Your task to perform on an android device: Go to location settings Image 0: 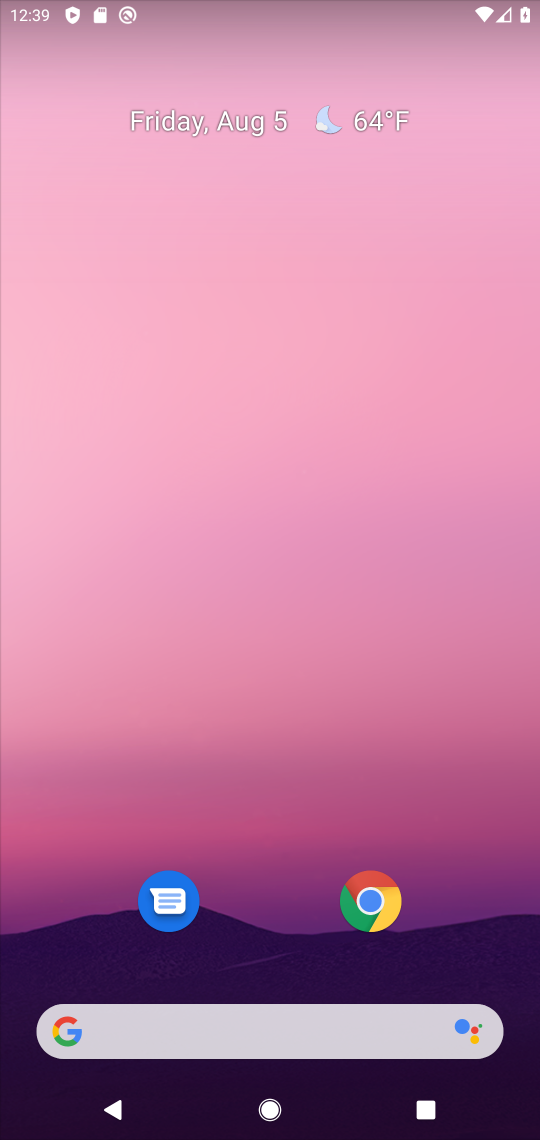
Step 0: drag from (223, 883) to (252, 290)
Your task to perform on an android device: Go to location settings Image 1: 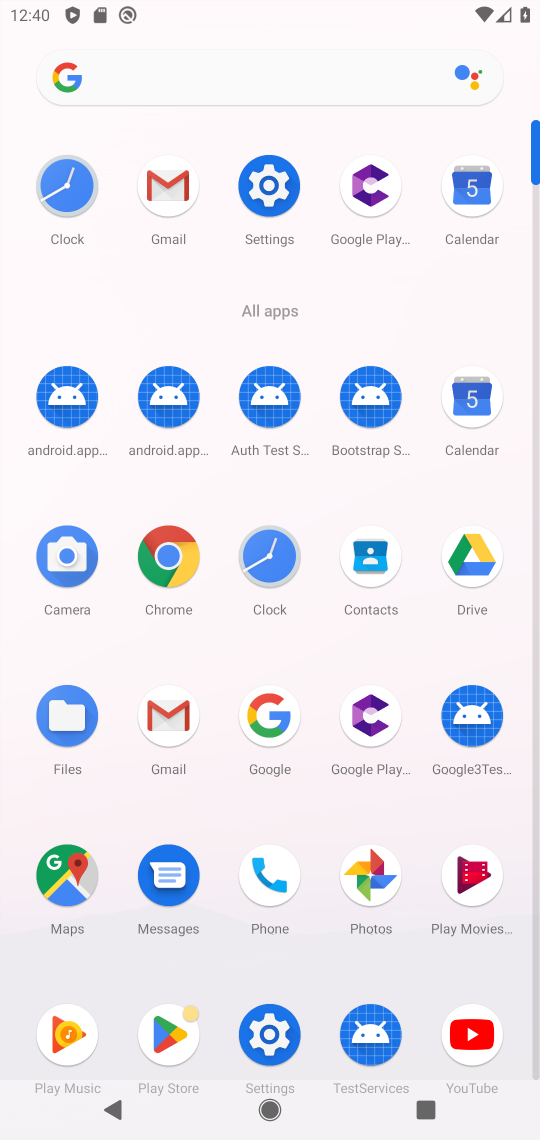
Step 1: click (267, 216)
Your task to perform on an android device: Go to location settings Image 2: 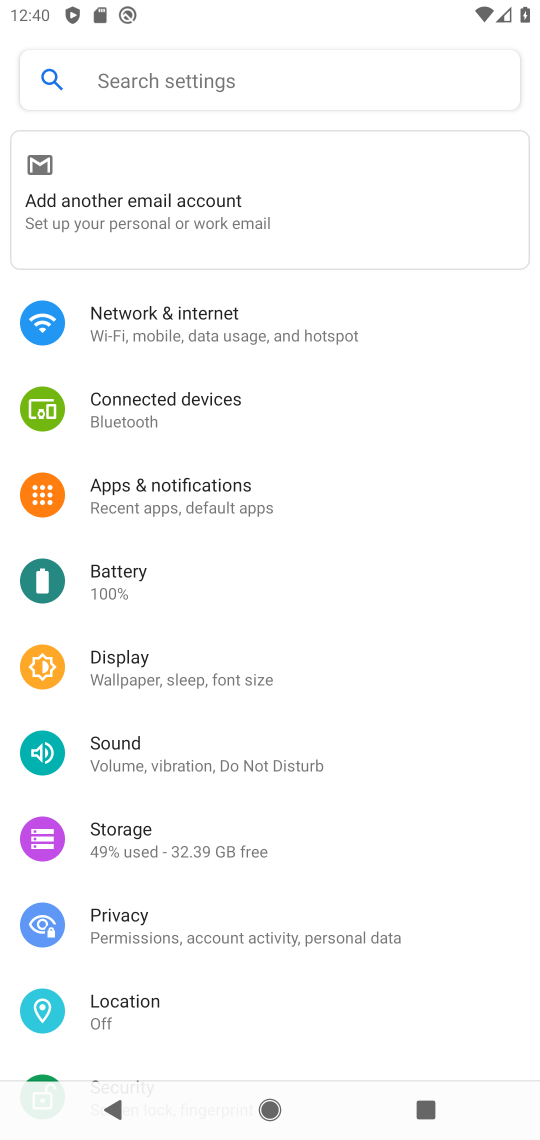
Step 2: click (141, 1015)
Your task to perform on an android device: Go to location settings Image 3: 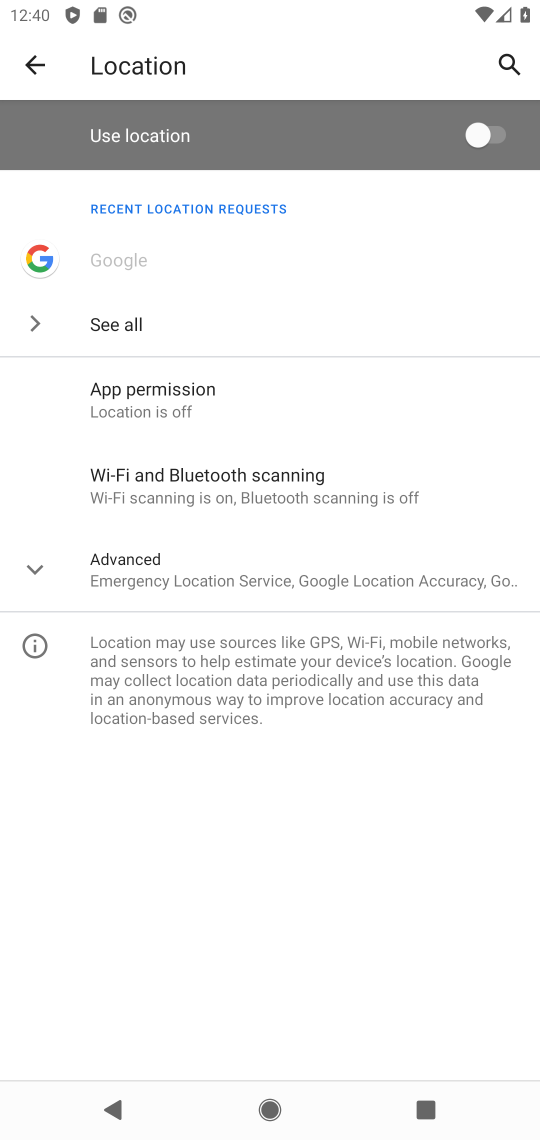
Step 3: task complete